Your task to perform on an android device: Open Yahoo.com Image 0: 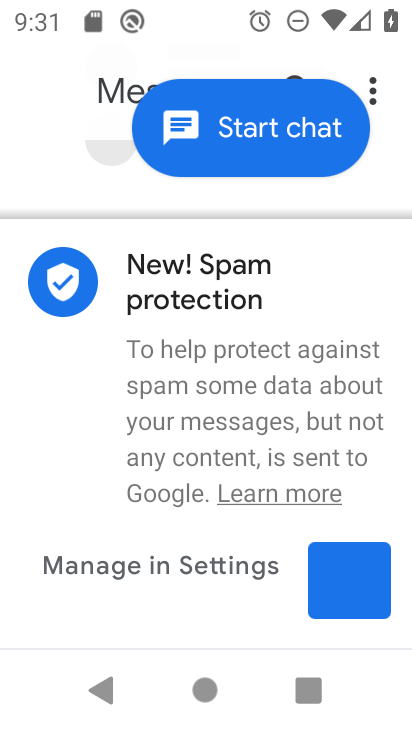
Step 0: press home button
Your task to perform on an android device: Open Yahoo.com Image 1: 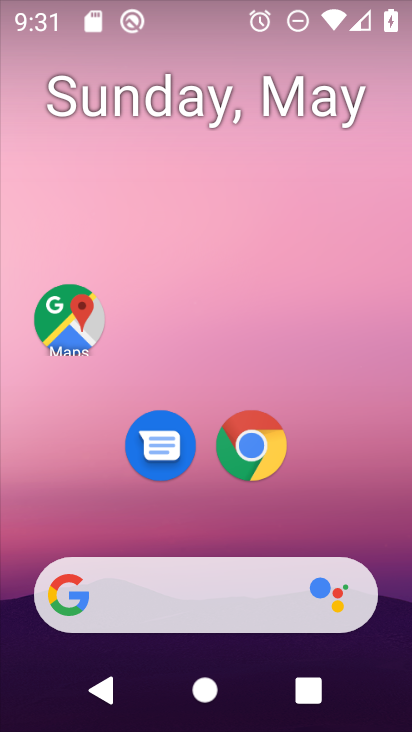
Step 1: drag from (280, 603) to (297, 345)
Your task to perform on an android device: Open Yahoo.com Image 2: 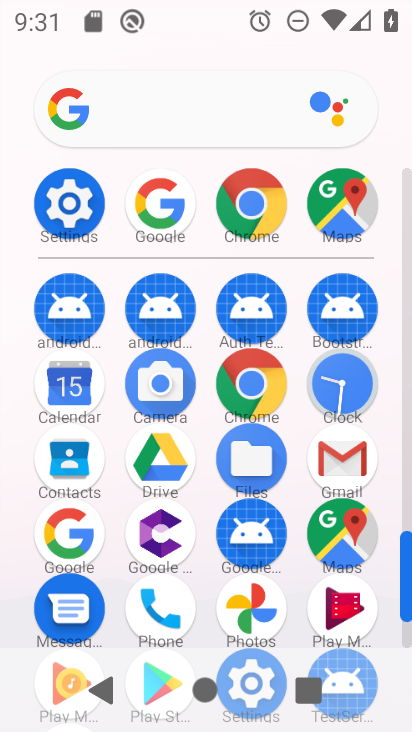
Step 2: click (270, 228)
Your task to perform on an android device: Open Yahoo.com Image 3: 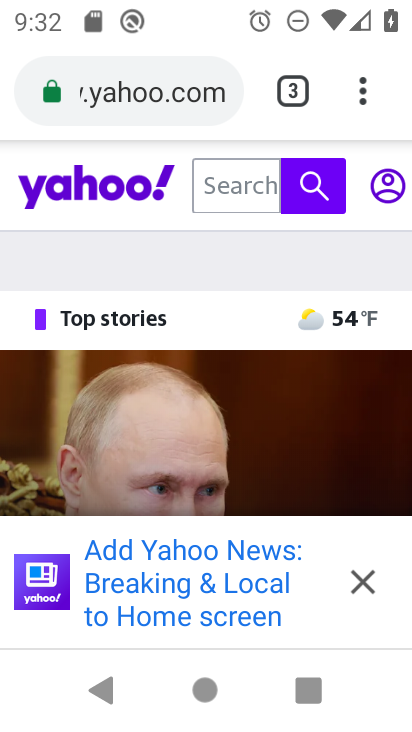
Step 3: task complete